Your task to perform on an android device: Do I have any events today? Image 0: 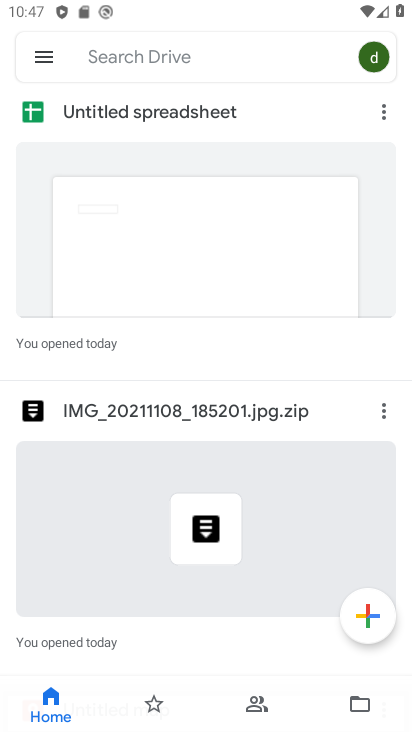
Step 0: press home button
Your task to perform on an android device: Do I have any events today? Image 1: 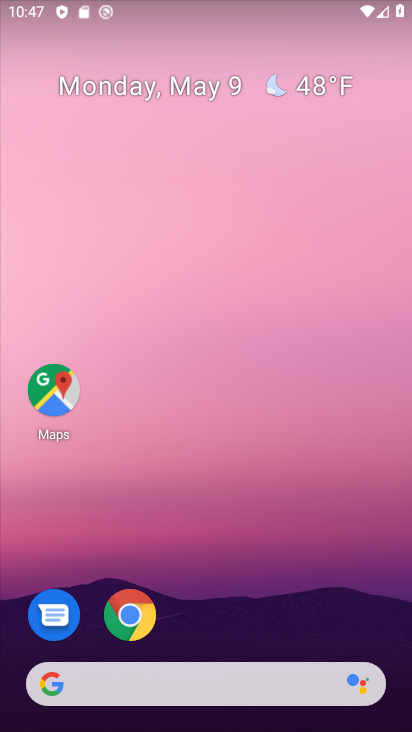
Step 1: drag from (203, 547) to (295, 29)
Your task to perform on an android device: Do I have any events today? Image 2: 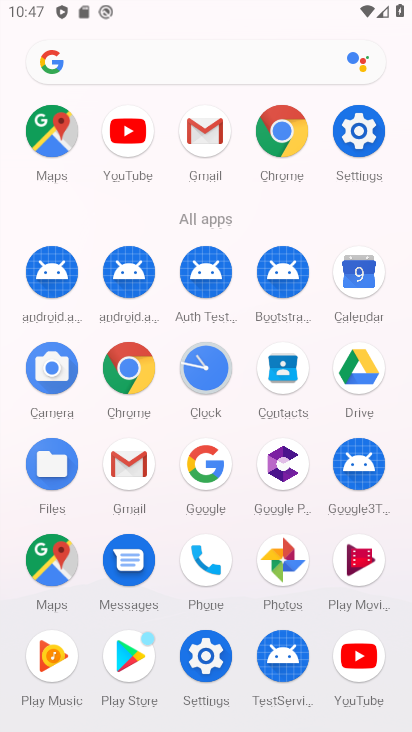
Step 2: click (363, 277)
Your task to perform on an android device: Do I have any events today? Image 3: 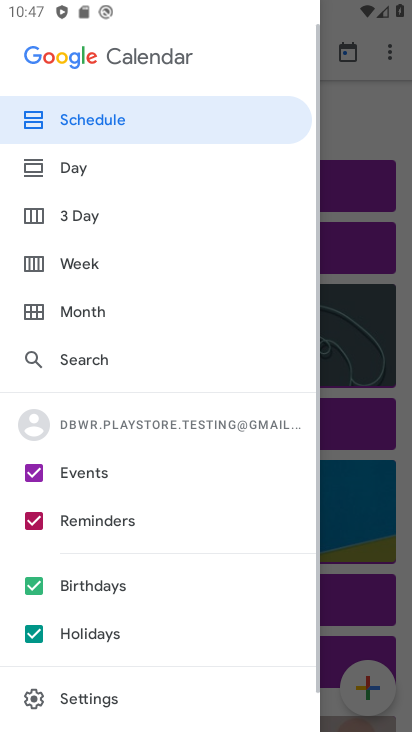
Step 3: click (34, 514)
Your task to perform on an android device: Do I have any events today? Image 4: 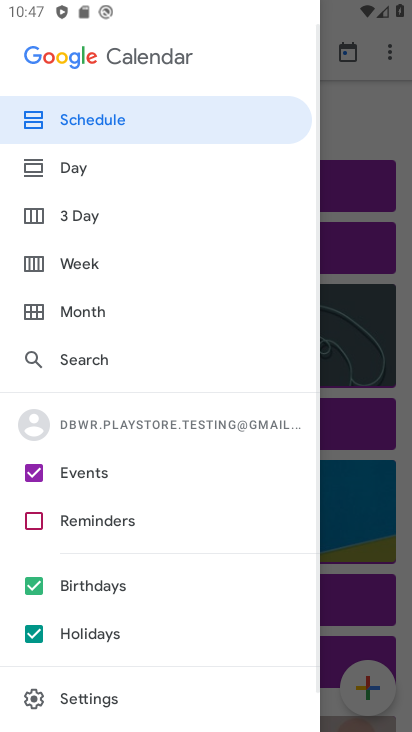
Step 4: click (31, 581)
Your task to perform on an android device: Do I have any events today? Image 5: 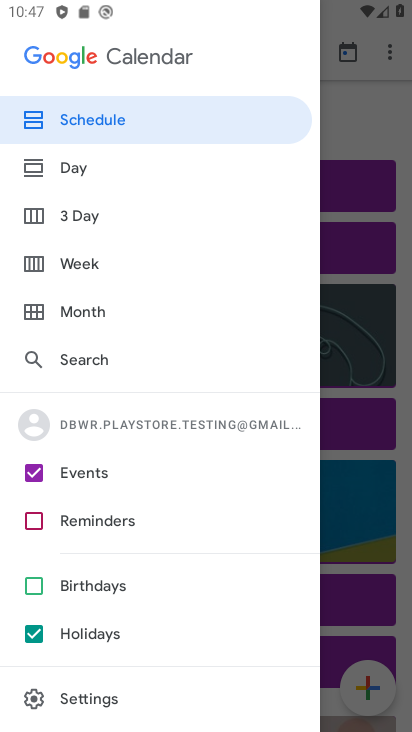
Step 5: click (32, 634)
Your task to perform on an android device: Do I have any events today? Image 6: 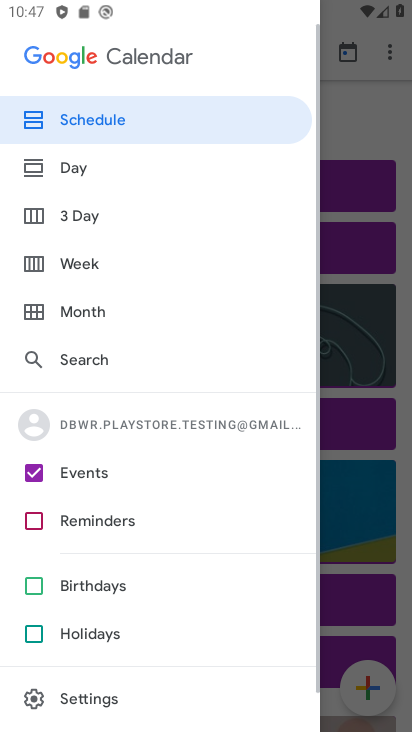
Step 6: click (395, 269)
Your task to perform on an android device: Do I have any events today? Image 7: 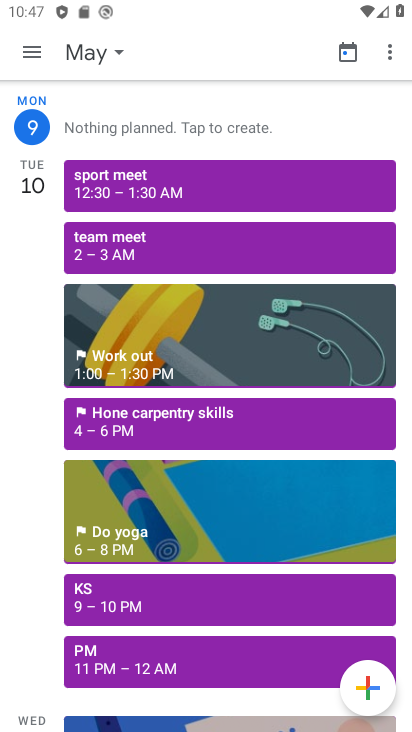
Step 7: task complete